Your task to perform on an android device: Do I have any events today? Image 0: 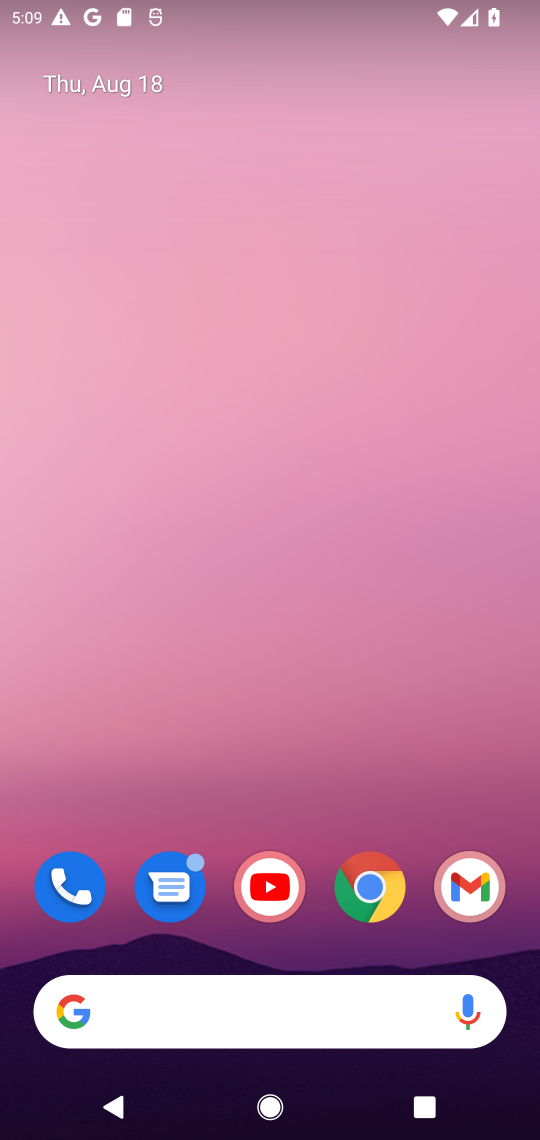
Step 0: drag from (364, 683) to (519, 28)
Your task to perform on an android device: Do I have any events today? Image 1: 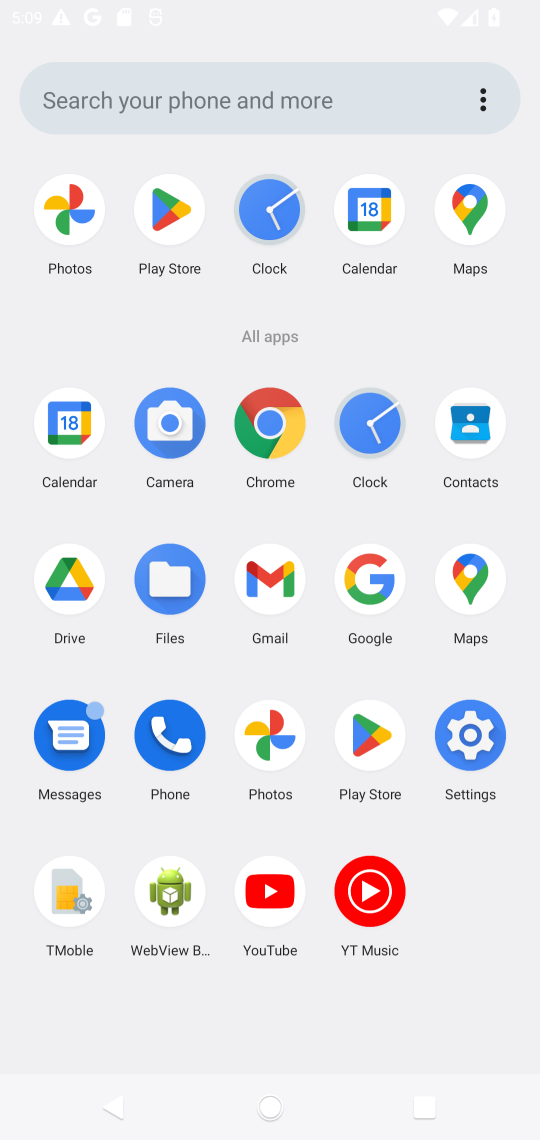
Step 1: task complete